Your task to perform on an android device: Set an alarm for 1pm Image 0: 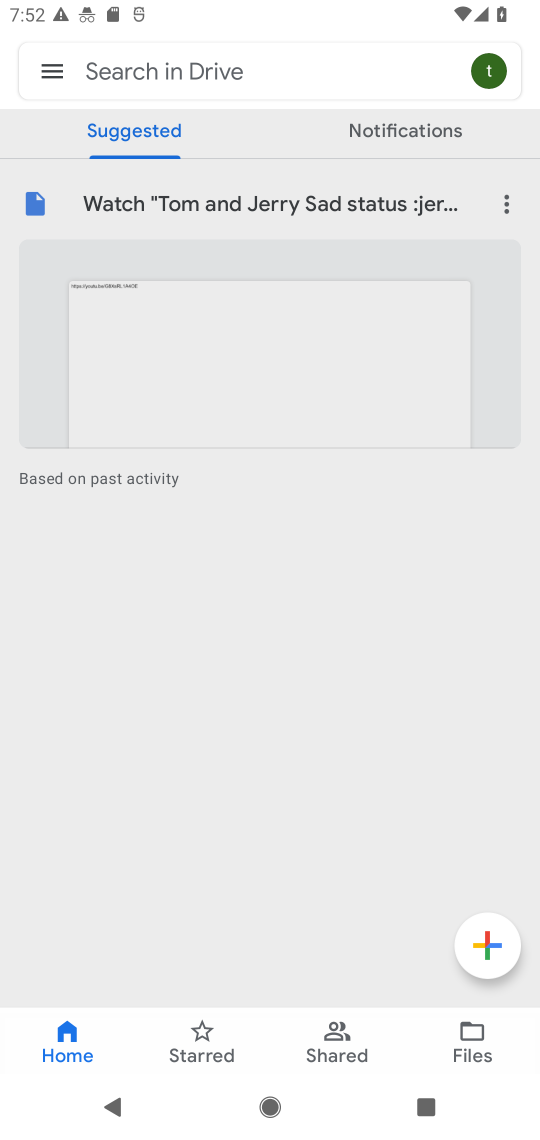
Step 0: press home button
Your task to perform on an android device: Set an alarm for 1pm Image 1: 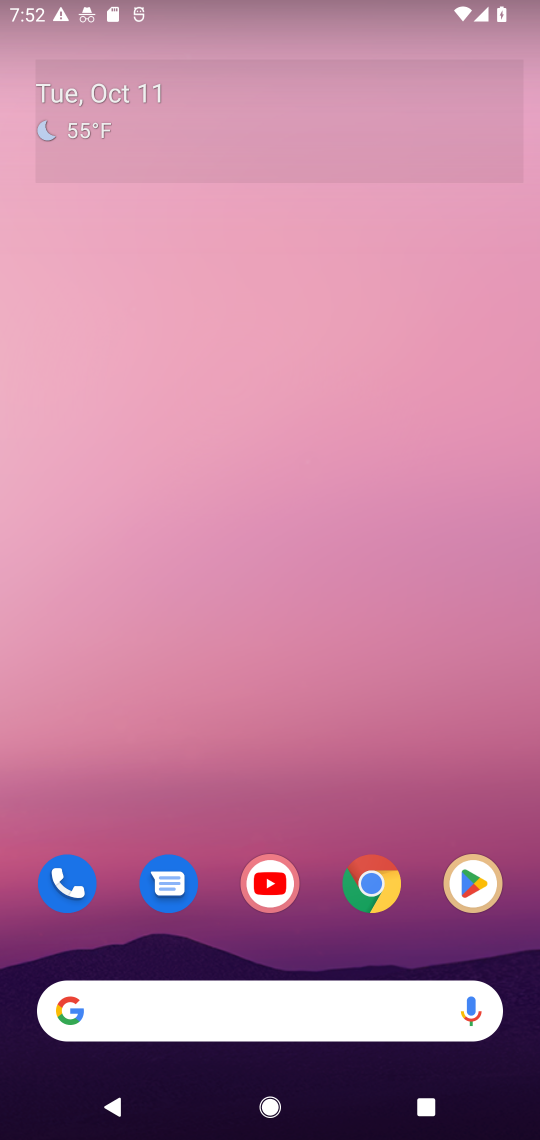
Step 1: drag from (321, 963) to (225, 6)
Your task to perform on an android device: Set an alarm for 1pm Image 2: 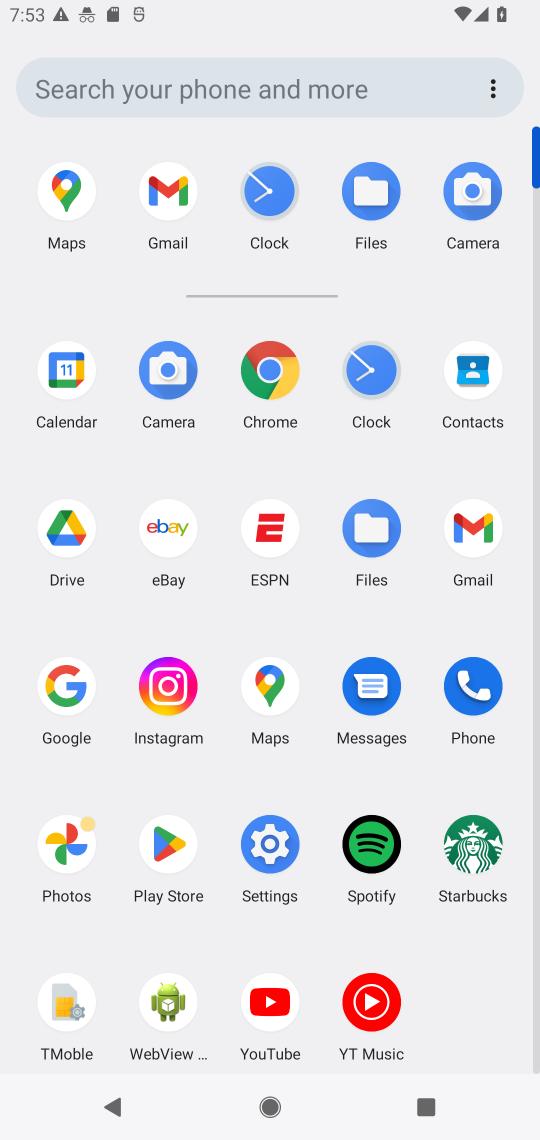
Step 2: click (367, 352)
Your task to perform on an android device: Set an alarm for 1pm Image 3: 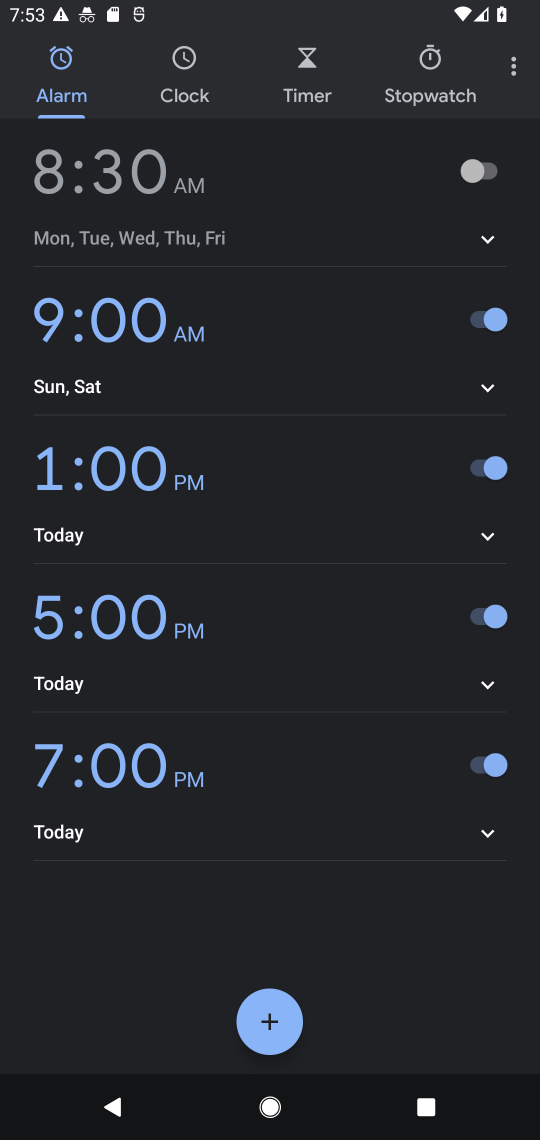
Step 3: click (279, 1022)
Your task to perform on an android device: Set an alarm for 1pm Image 4: 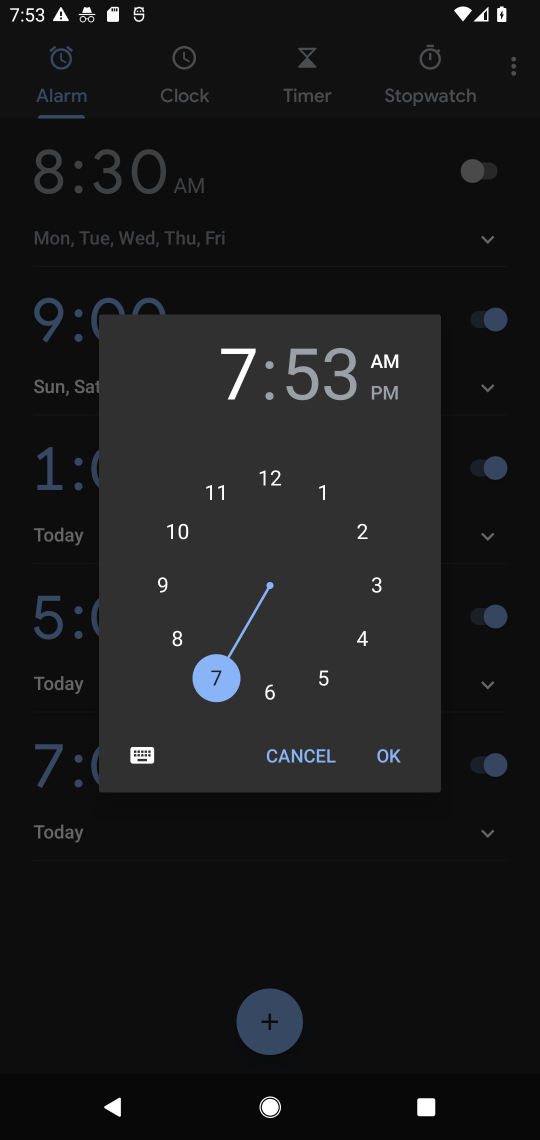
Step 4: click (320, 482)
Your task to perform on an android device: Set an alarm for 1pm Image 5: 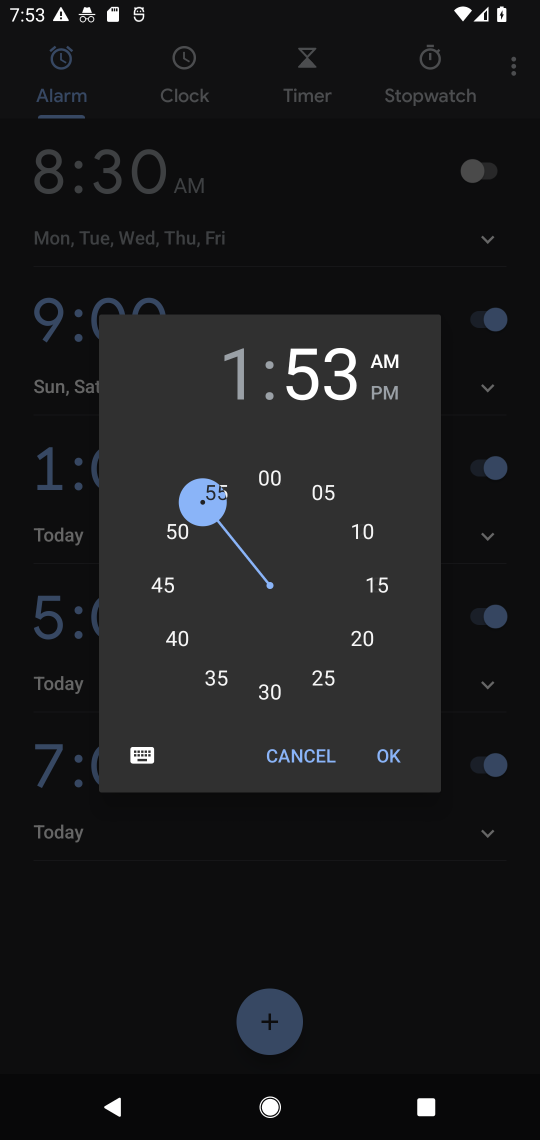
Step 5: click (376, 380)
Your task to perform on an android device: Set an alarm for 1pm Image 6: 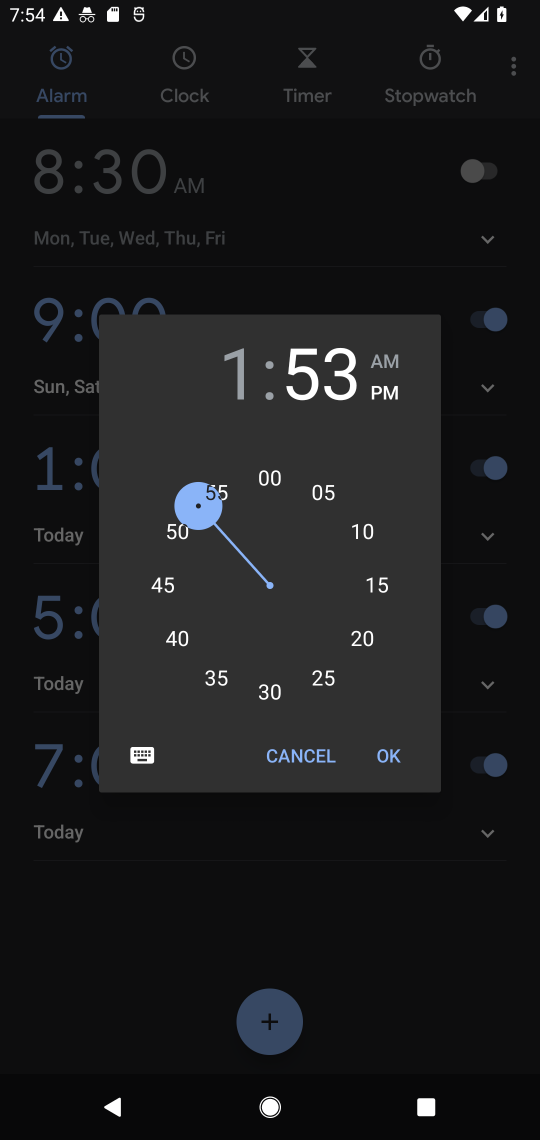
Step 6: click (266, 486)
Your task to perform on an android device: Set an alarm for 1pm Image 7: 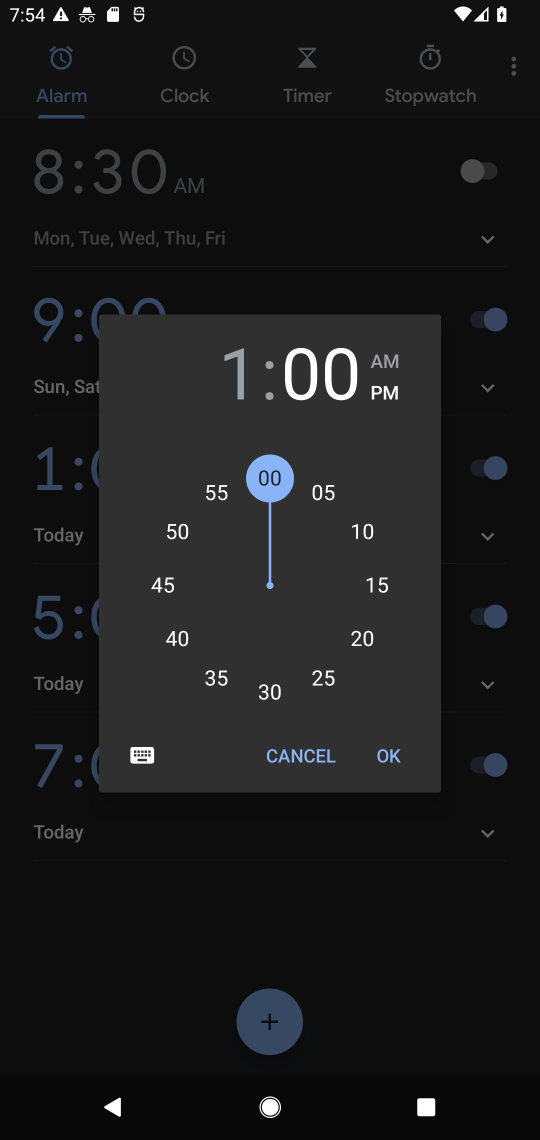
Step 7: click (384, 756)
Your task to perform on an android device: Set an alarm for 1pm Image 8: 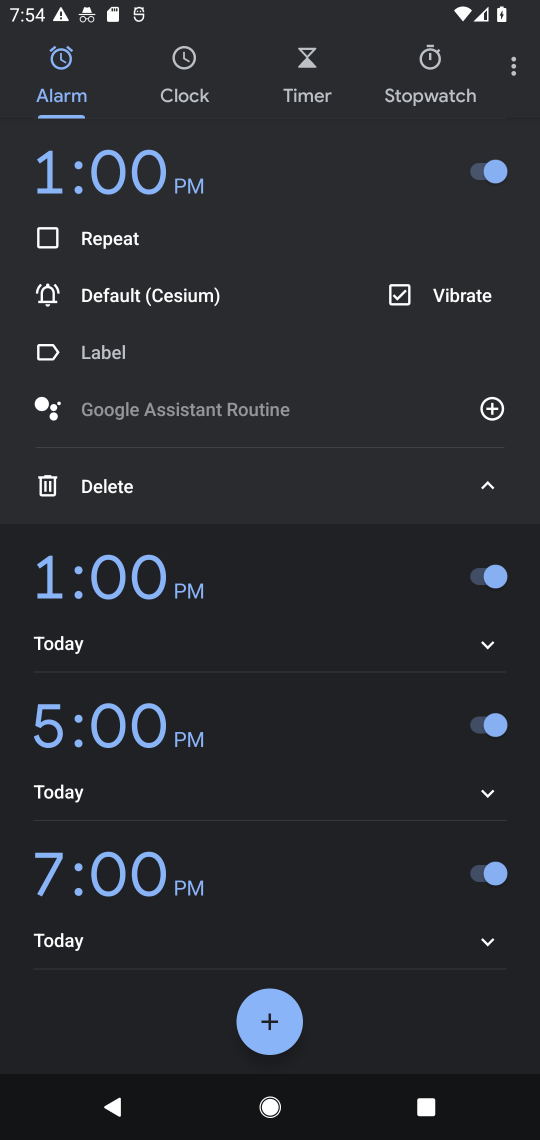
Step 8: task complete